Your task to perform on an android device: make emails show in primary in the gmail app Image 0: 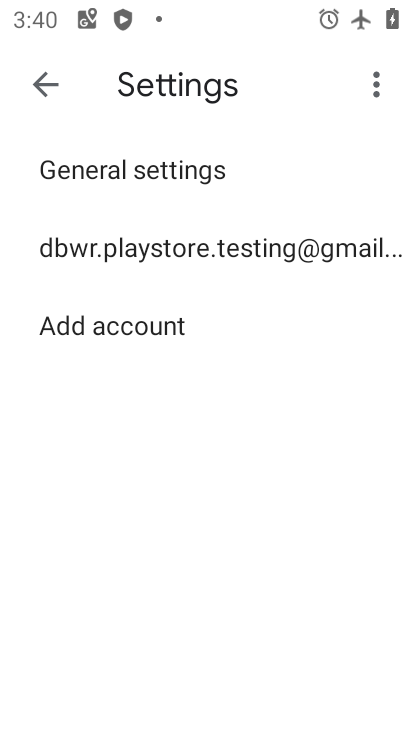
Step 0: press home button
Your task to perform on an android device: make emails show in primary in the gmail app Image 1: 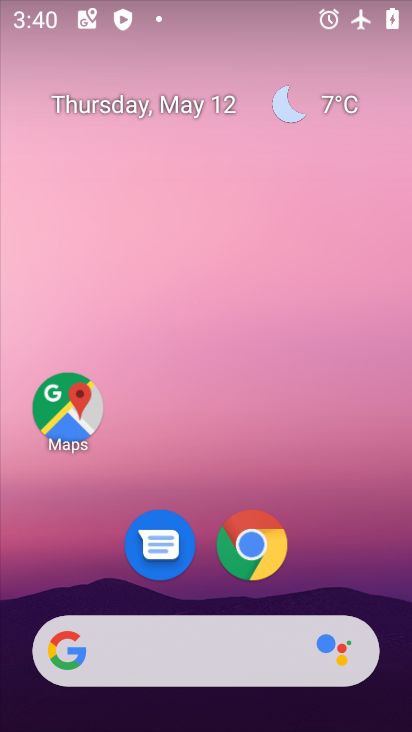
Step 1: drag from (388, 646) to (310, 94)
Your task to perform on an android device: make emails show in primary in the gmail app Image 2: 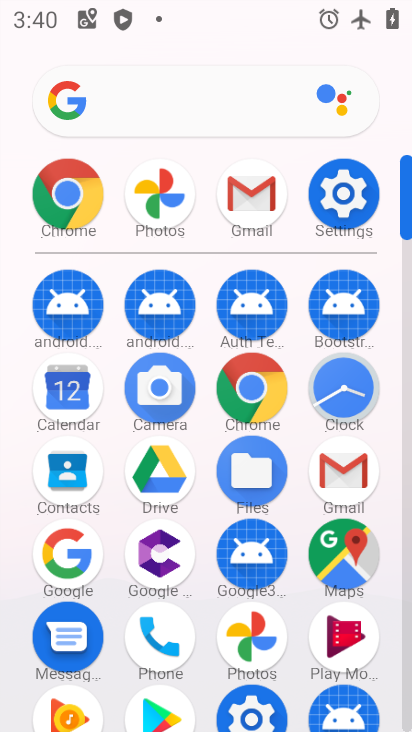
Step 2: click (337, 469)
Your task to perform on an android device: make emails show in primary in the gmail app Image 3: 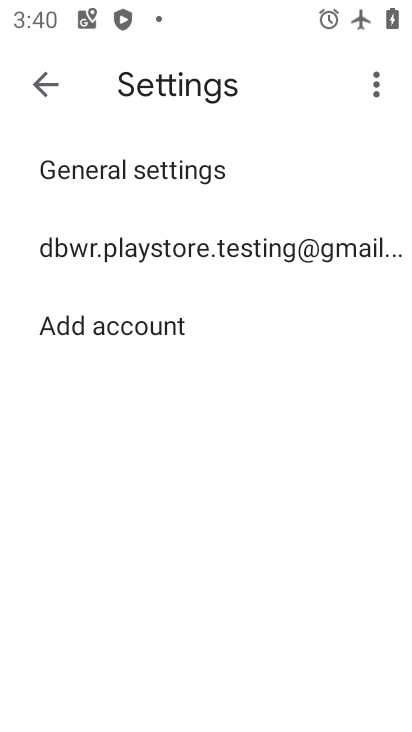
Step 3: click (192, 241)
Your task to perform on an android device: make emails show in primary in the gmail app Image 4: 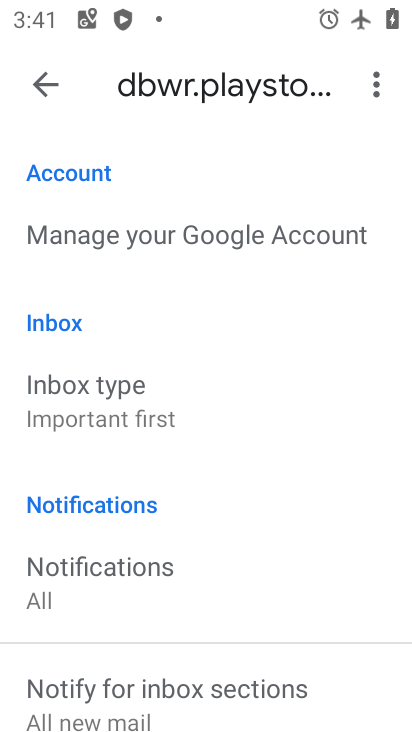
Step 4: click (99, 411)
Your task to perform on an android device: make emails show in primary in the gmail app Image 5: 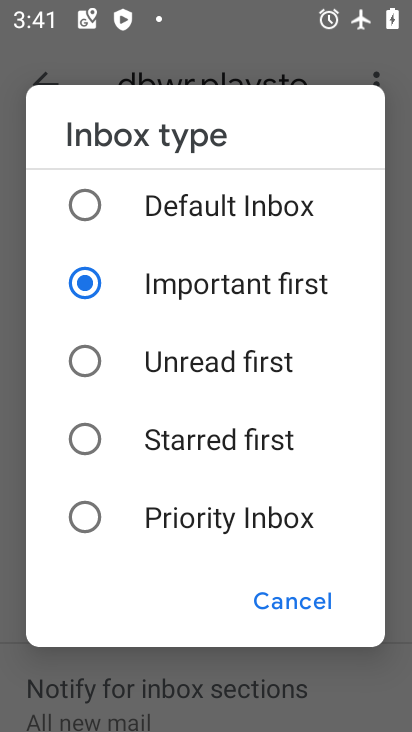
Step 5: click (85, 217)
Your task to perform on an android device: make emails show in primary in the gmail app Image 6: 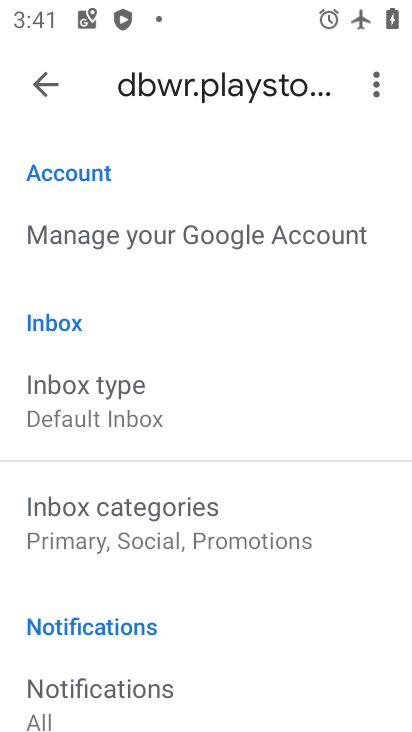
Step 6: click (84, 518)
Your task to perform on an android device: make emails show in primary in the gmail app Image 7: 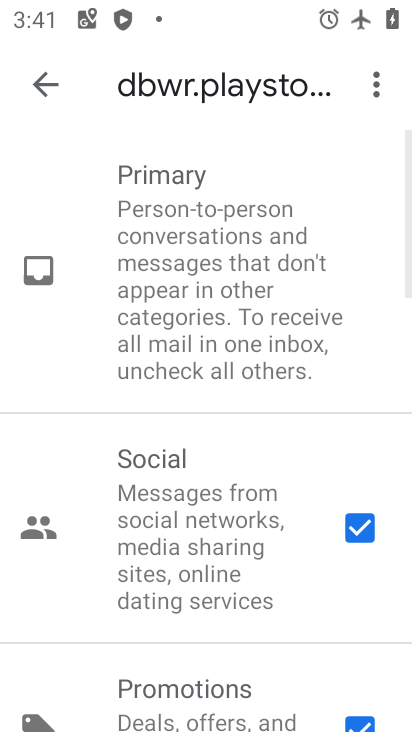
Step 7: click (367, 518)
Your task to perform on an android device: make emails show in primary in the gmail app Image 8: 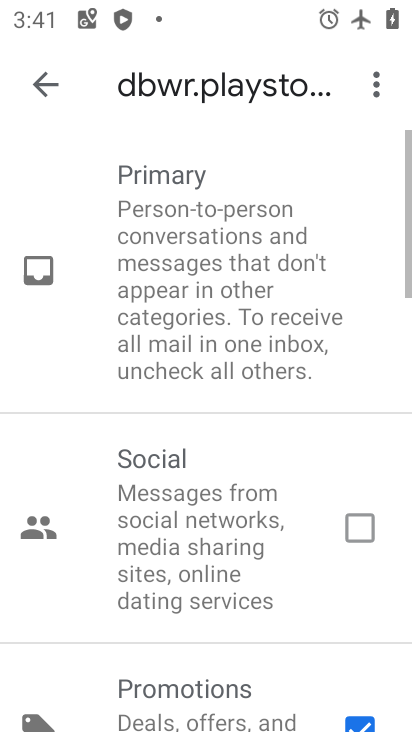
Step 8: drag from (254, 602) to (221, 178)
Your task to perform on an android device: make emails show in primary in the gmail app Image 9: 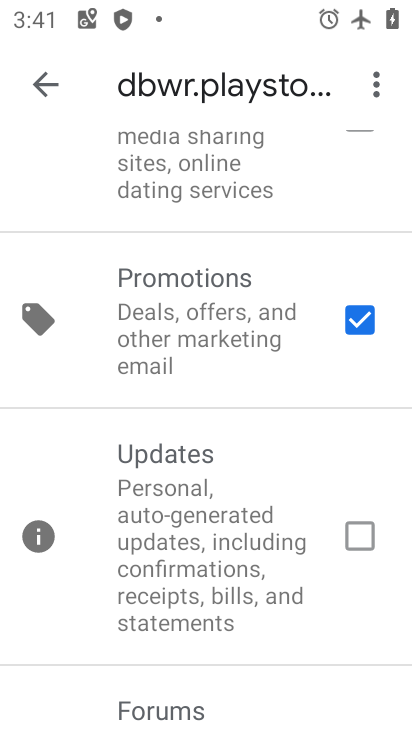
Step 9: click (347, 320)
Your task to perform on an android device: make emails show in primary in the gmail app Image 10: 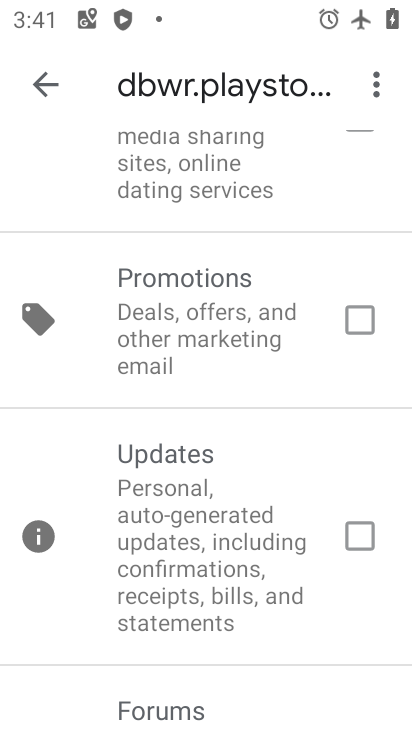
Step 10: task complete